Your task to perform on an android device: Search for Mexican restaurants on Maps Image 0: 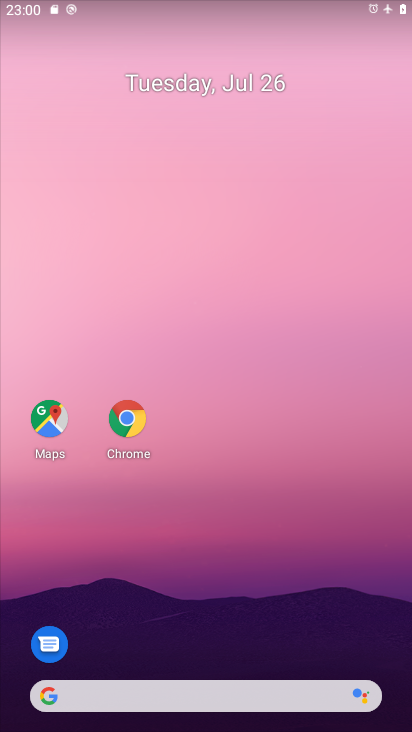
Step 0: drag from (236, 670) to (262, 332)
Your task to perform on an android device: Search for Mexican restaurants on Maps Image 1: 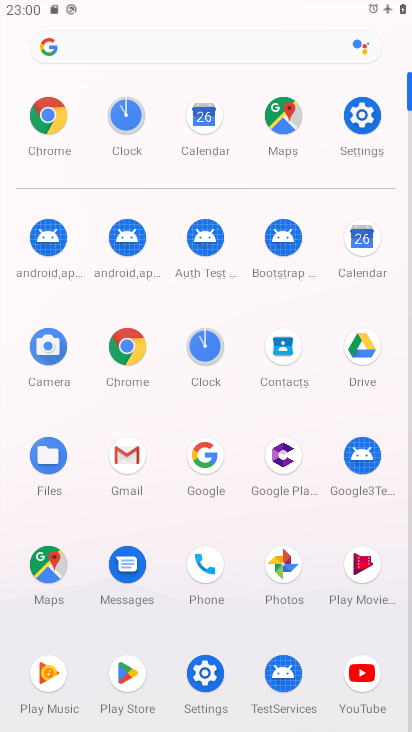
Step 1: click (51, 579)
Your task to perform on an android device: Search for Mexican restaurants on Maps Image 2: 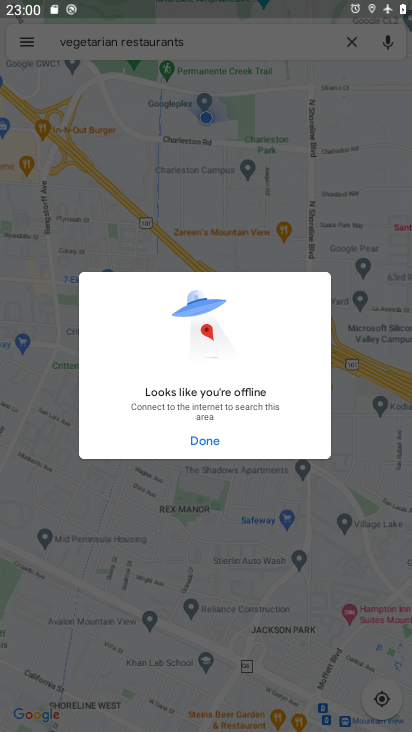
Step 2: click (204, 431)
Your task to perform on an android device: Search for Mexican restaurants on Maps Image 3: 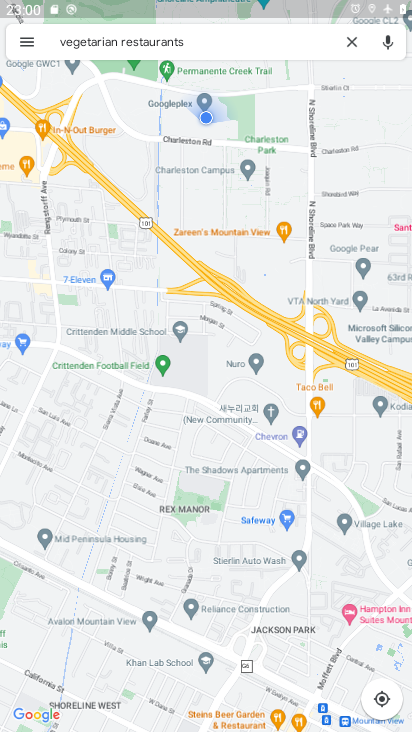
Step 3: click (349, 34)
Your task to perform on an android device: Search for Mexican restaurants on Maps Image 4: 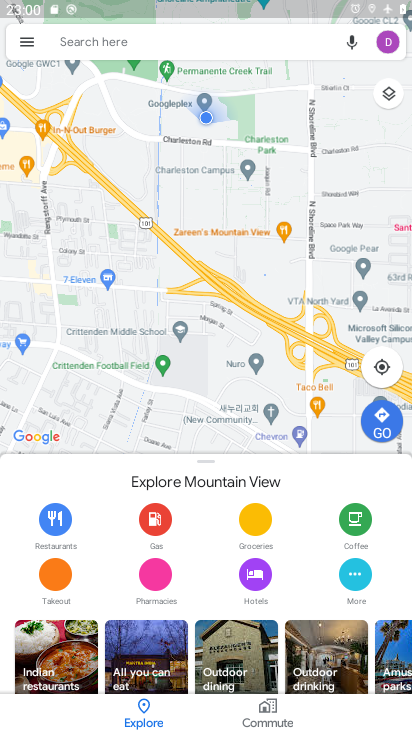
Step 4: click (188, 29)
Your task to perform on an android device: Search for Mexican restaurants on Maps Image 5: 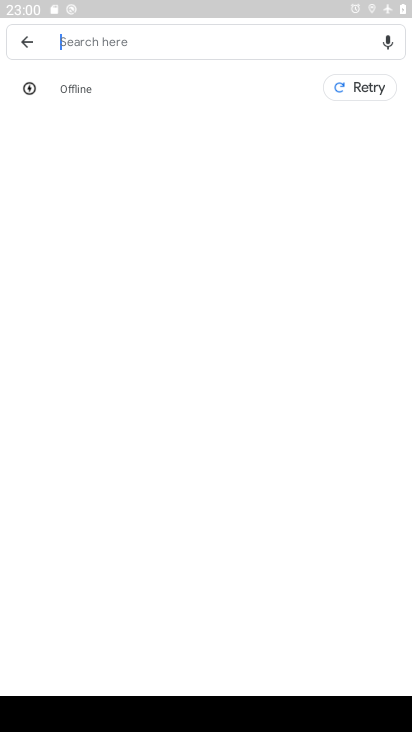
Step 5: click (172, 39)
Your task to perform on an android device: Search for Mexican restaurants on Maps Image 6: 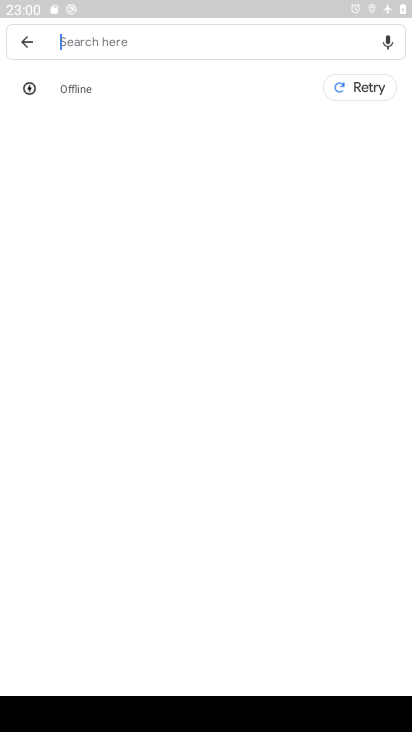
Step 6: type "Mexican restaurant "
Your task to perform on an android device: Search for Mexican restaurants on Maps Image 7: 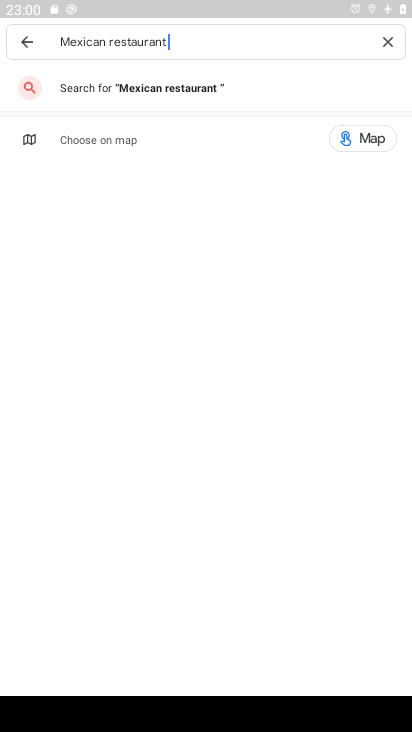
Step 7: click (168, 90)
Your task to perform on an android device: Search for Mexican restaurants on Maps Image 8: 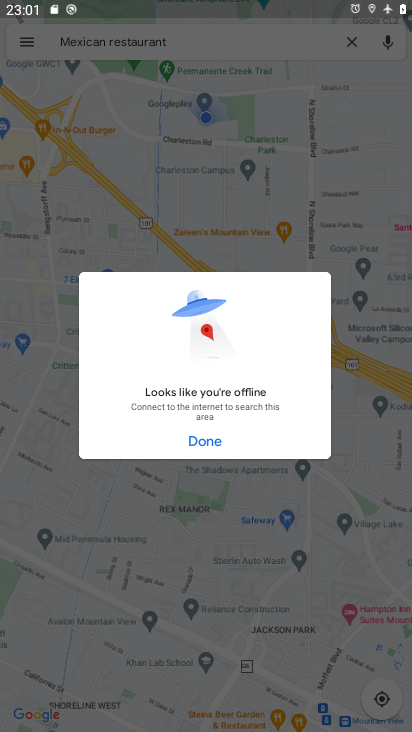
Step 8: click (201, 439)
Your task to perform on an android device: Search for Mexican restaurants on Maps Image 9: 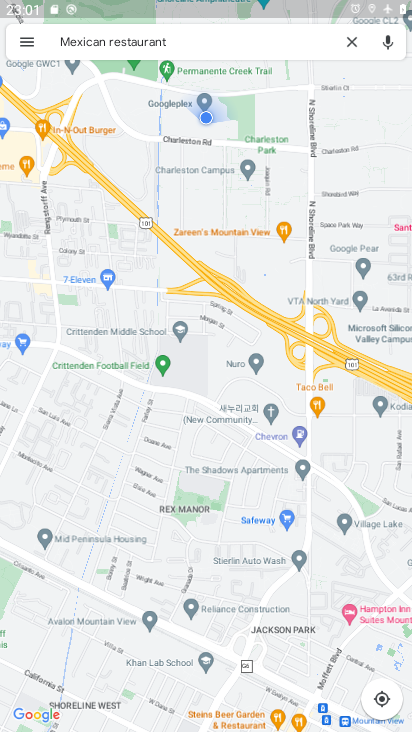
Step 9: task complete